Your task to perform on an android device: turn off location history Image 0: 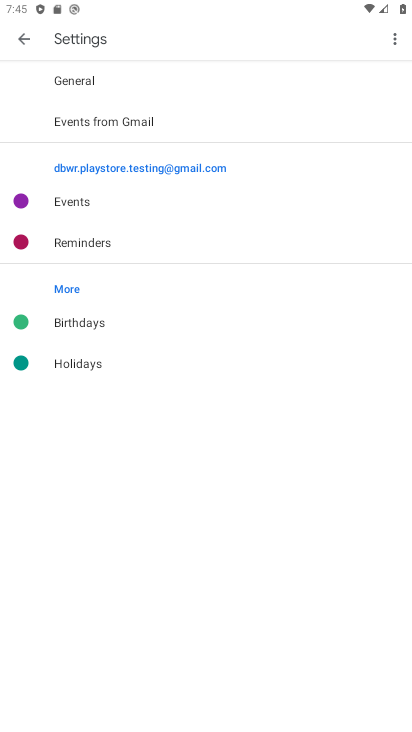
Step 0: press home button
Your task to perform on an android device: turn off location history Image 1: 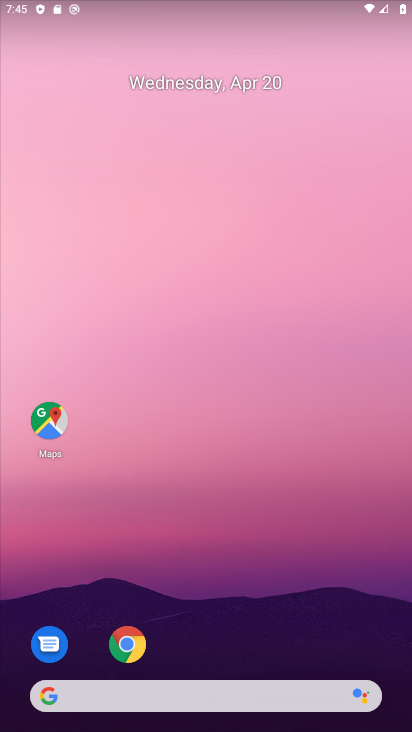
Step 1: drag from (322, 622) to (212, 84)
Your task to perform on an android device: turn off location history Image 2: 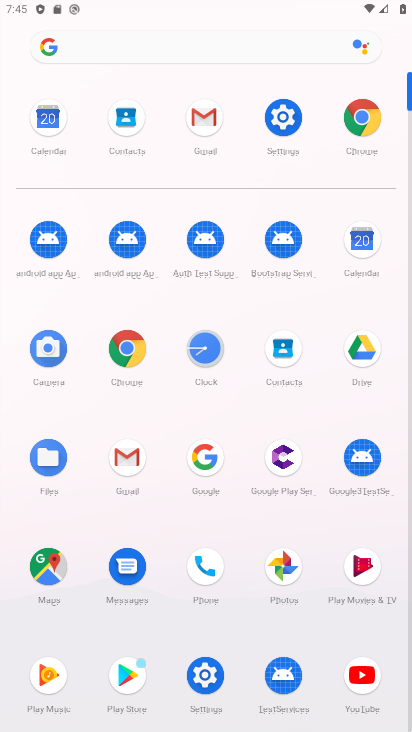
Step 2: click (274, 123)
Your task to perform on an android device: turn off location history Image 3: 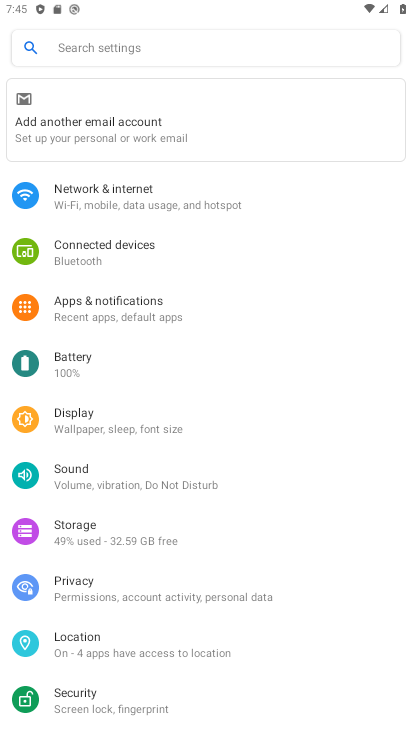
Step 3: click (104, 640)
Your task to perform on an android device: turn off location history Image 4: 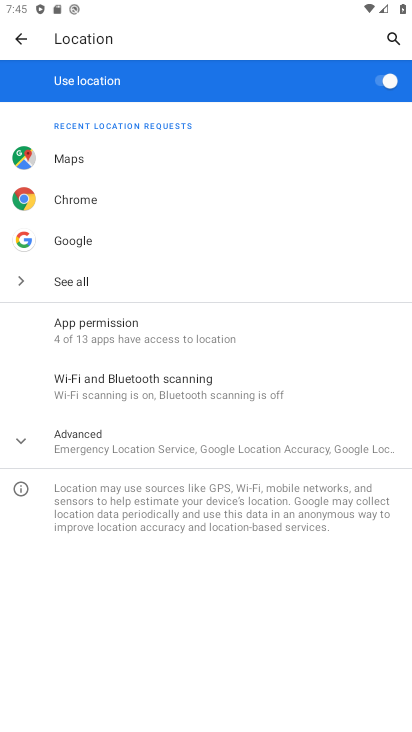
Step 4: click (23, 433)
Your task to perform on an android device: turn off location history Image 5: 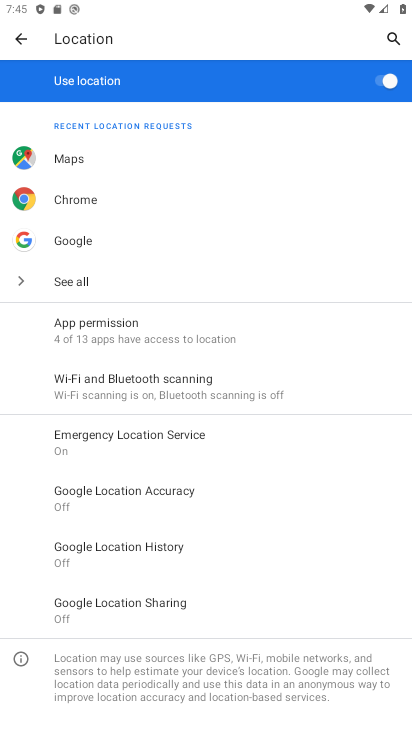
Step 5: click (158, 544)
Your task to perform on an android device: turn off location history Image 6: 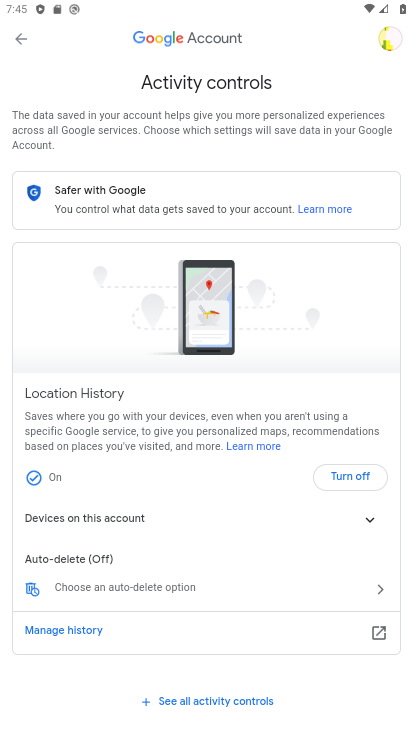
Step 6: task complete